Your task to perform on an android device: Open the stopwatch Image 0: 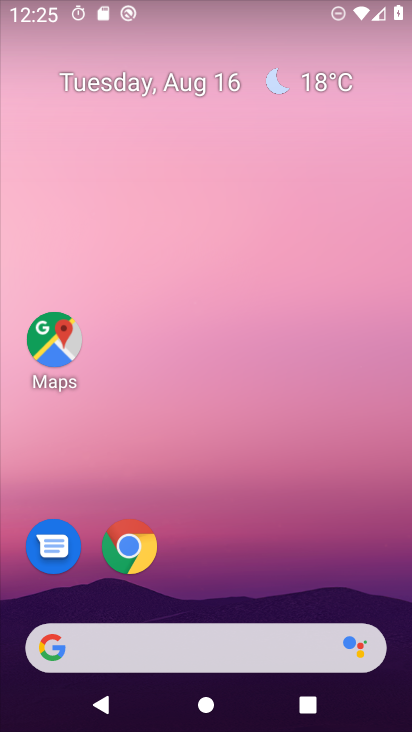
Step 0: drag from (221, 535) to (203, 24)
Your task to perform on an android device: Open the stopwatch Image 1: 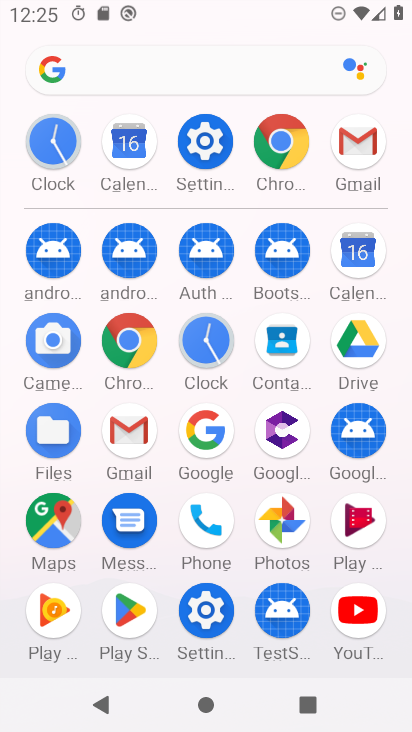
Step 1: click (206, 335)
Your task to perform on an android device: Open the stopwatch Image 2: 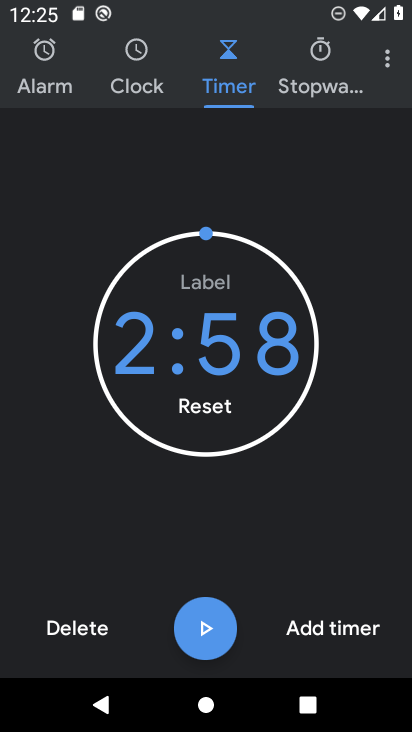
Step 2: click (325, 56)
Your task to perform on an android device: Open the stopwatch Image 3: 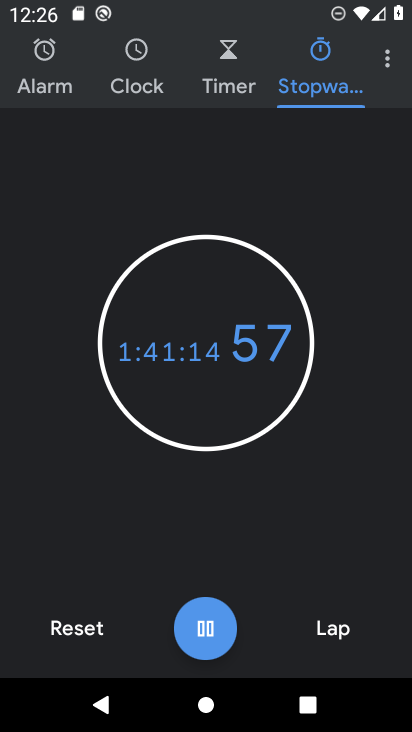
Step 3: task complete